Your task to perform on an android device: change alarm snooze length Image 0: 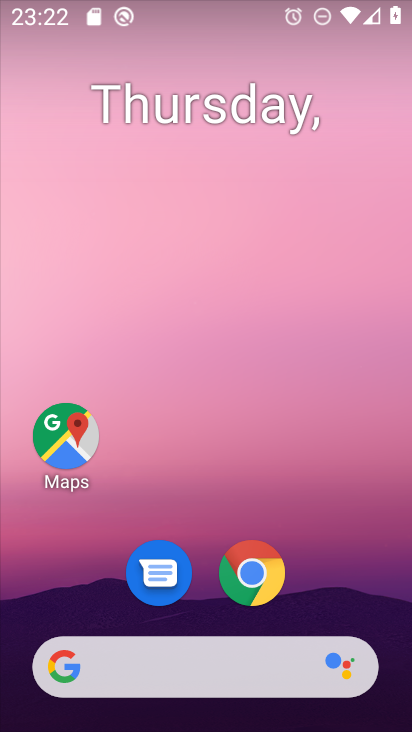
Step 0: drag from (181, 366) to (202, 5)
Your task to perform on an android device: change alarm snooze length Image 1: 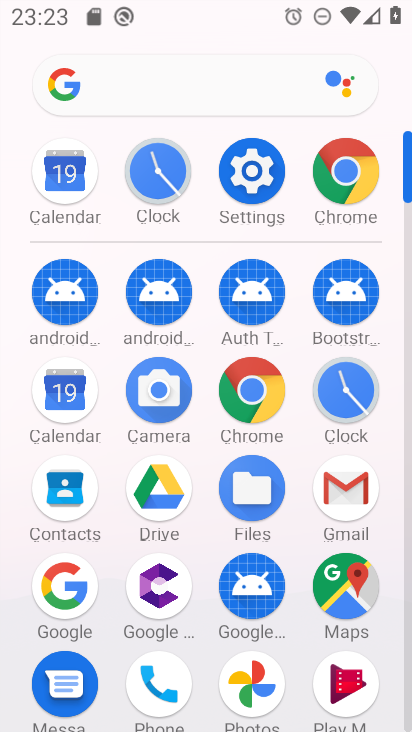
Step 1: click (167, 175)
Your task to perform on an android device: change alarm snooze length Image 2: 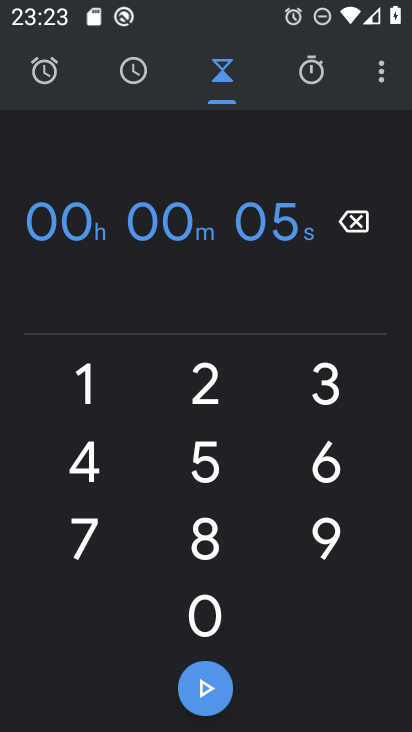
Step 2: click (383, 62)
Your task to perform on an android device: change alarm snooze length Image 3: 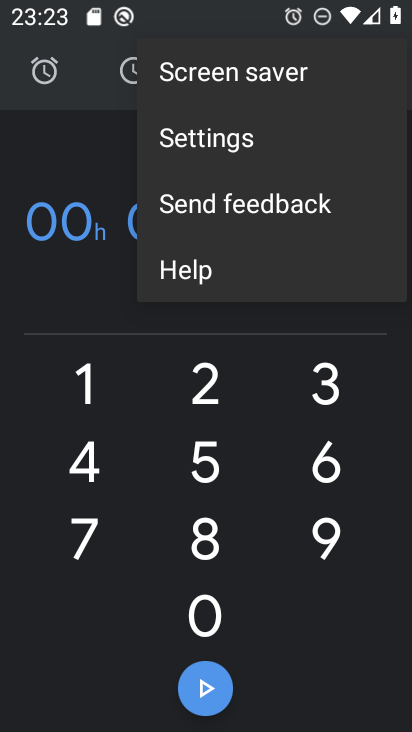
Step 3: click (204, 148)
Your task to perform on an android device: change alarm snooze length Image 4: 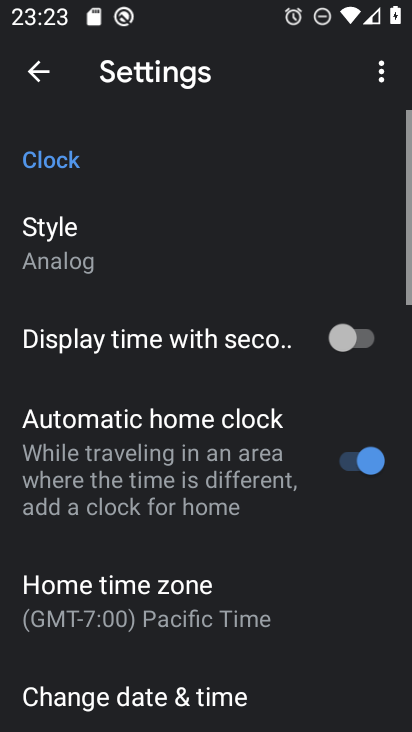
Step 4: drag from (230, 620) to (248, 158)
Your task to perform on an android device: change alarm snooze length Image 5: 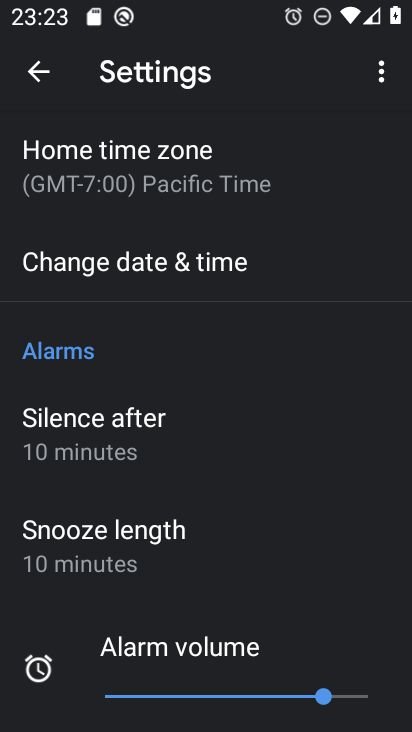
Step 5: click (156, 538)
Your task to perform on an android device: change alarm snooze length Image 6: 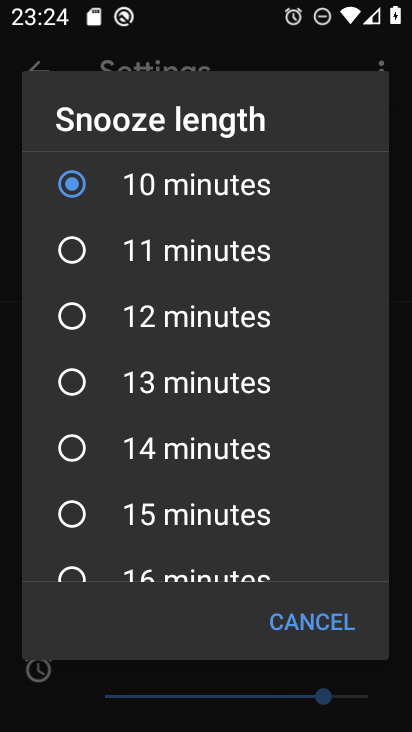
Step 6: click (173, 255)
Your task to perform on an android device: change alarm snooze length Image 7: 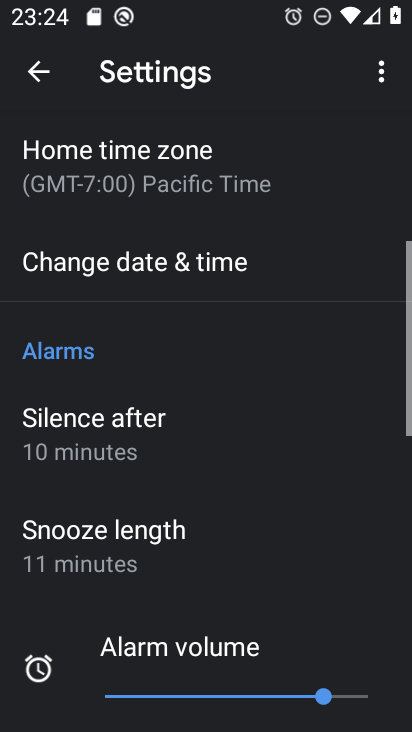
Step 7: task complete